Your task to perform on an android device: Search for Italian restaurants on Maps Image 0: 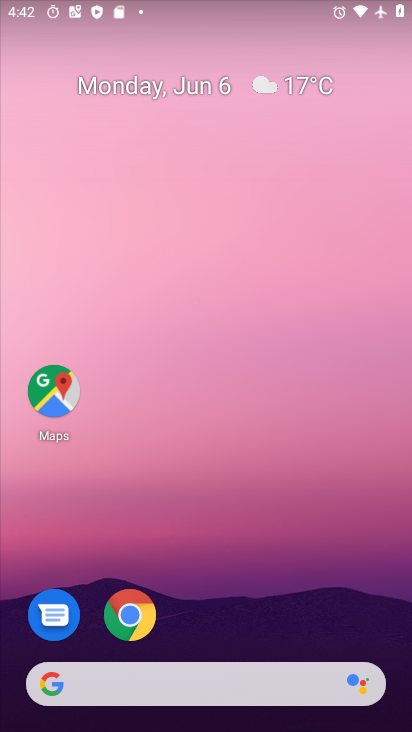
Step 0: drag from (255, 602) to (224, 19)
Your task to perform on an android device: Search for Italian restaurants on Maps Image 1: 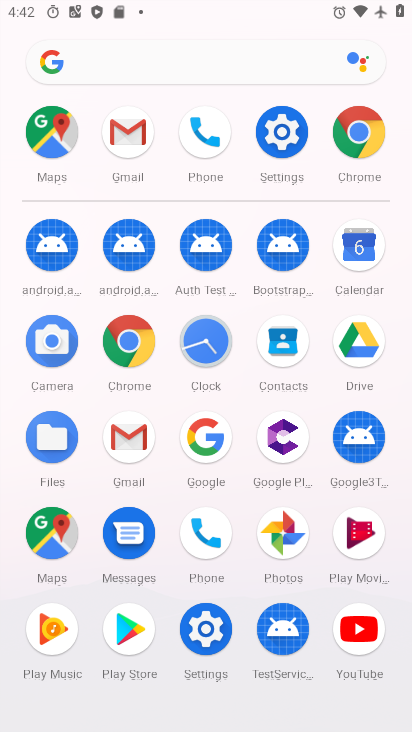
Step 1: drag from (5, 571) to (6, 269)
Your task to perform on an android device: Search for Italian restaurants on Maps Image 2: 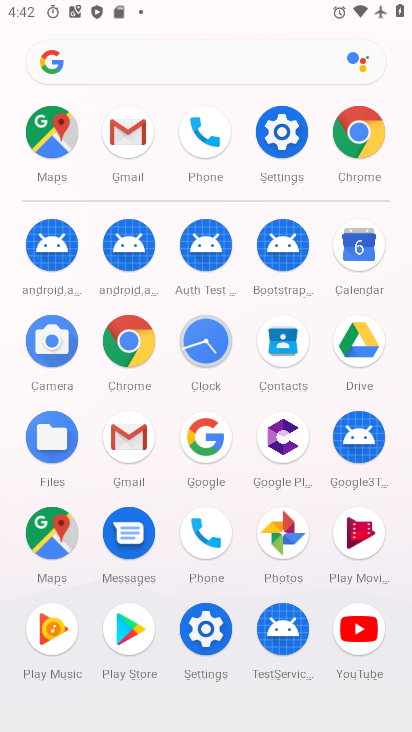
Step 2: click (47, 529)
Your task to perform on an android device: Search for Italian restaurants on Maps Image 3: 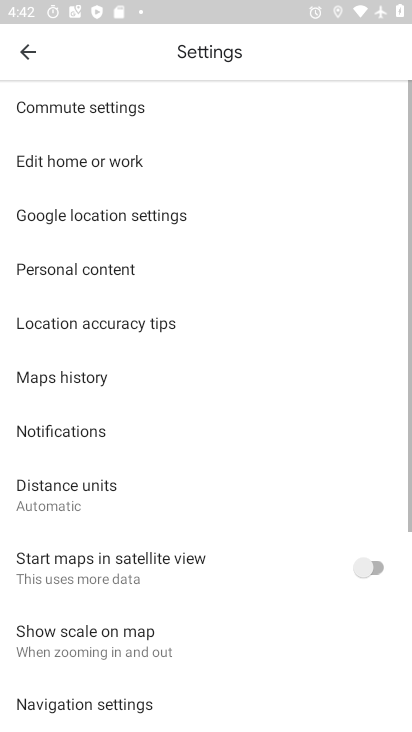
Step 3: click (26, 44)
Your task to perform on an android device: Search for Italian restaurants on Maps Image 4: 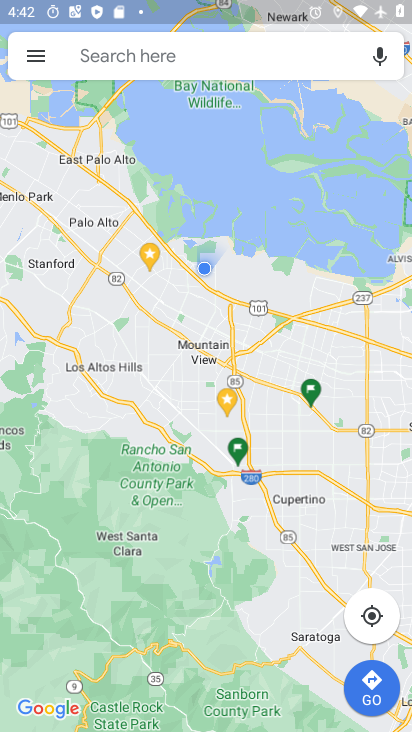
Step 4: click (218, 57)
Your task to perform on an android device: Search for Italian restaurants on Maps Image 5: 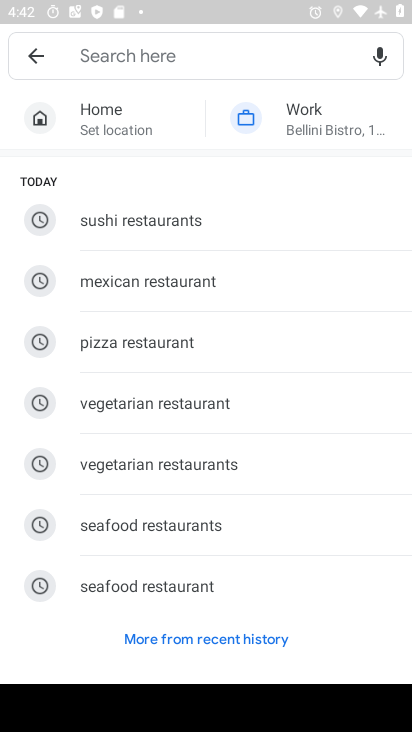
Step 5: type "Italian restaurants"
Your task to perform on an android device: Search for Italian restaurants on Maps Image 6: 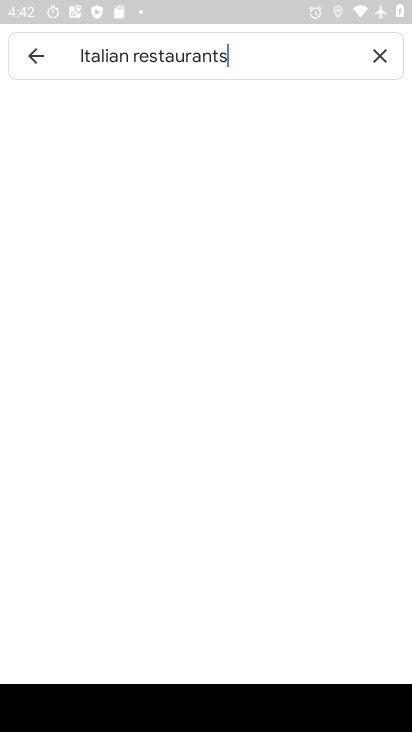
Step 6: type ""
Your task to perform on an android device: Search for Italian restaurants on Maps Image 7: 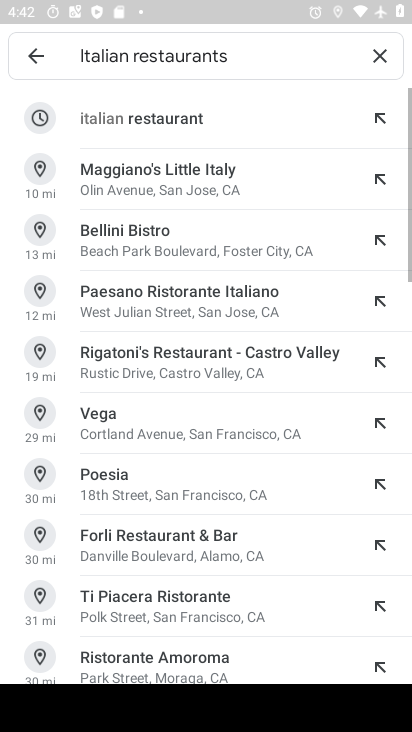
Step 7: click (207, 125)
Your task to perform on an android device: Search for Italian restaurants on Maps Image 8: 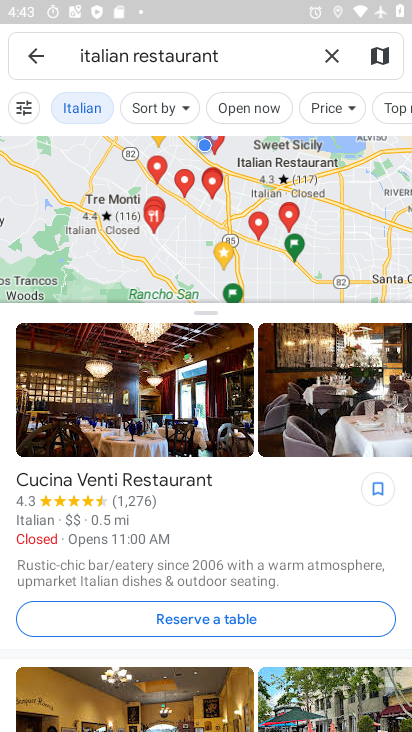
Step 8: task complete